Your task to perform on an android device: What's the weather today? Image 0: 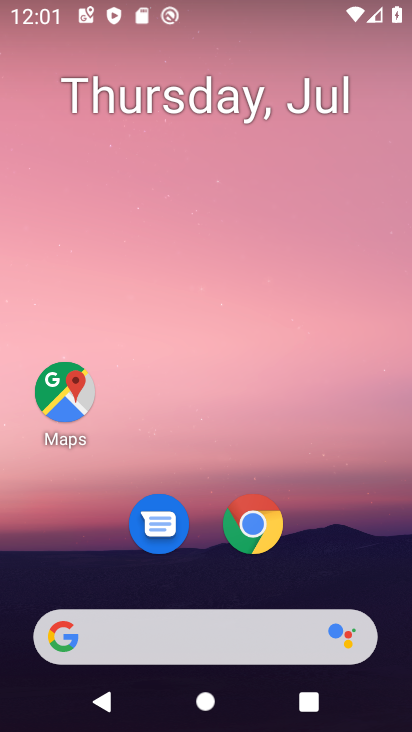
Step 0: click (139, 640)
Your task to perform on an android device: What's the weather today? Image 1: 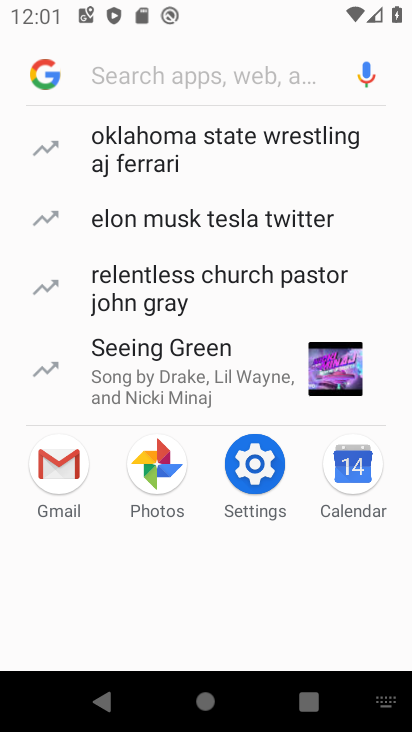
Step 1: type " weather"
Your task to perform on an android device: What's the weather today? Image 2: 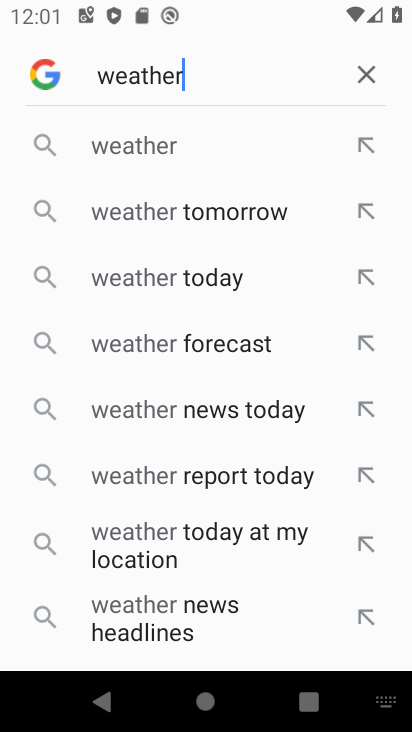
Step 2: click (154, 144)
Your task to perform on an android device: What's the weather today? Image 3: 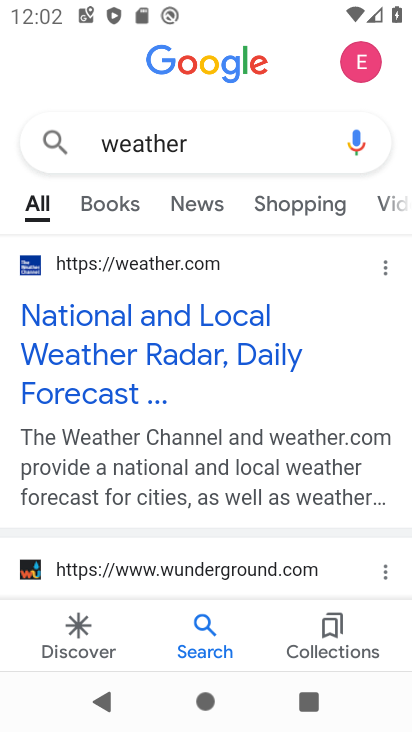
Step 3: click (204, 627)
Your task to perform on an android device: What's the weather today? Image 4: 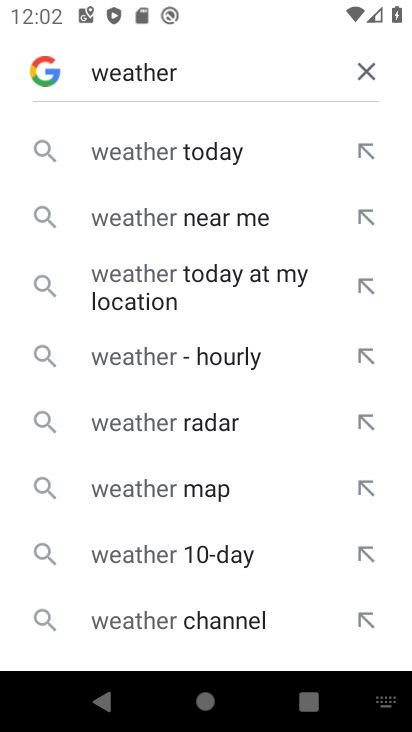
Step 4: click (195, 138)
Your task to perform on an android device: What's the weather today? Image 5: 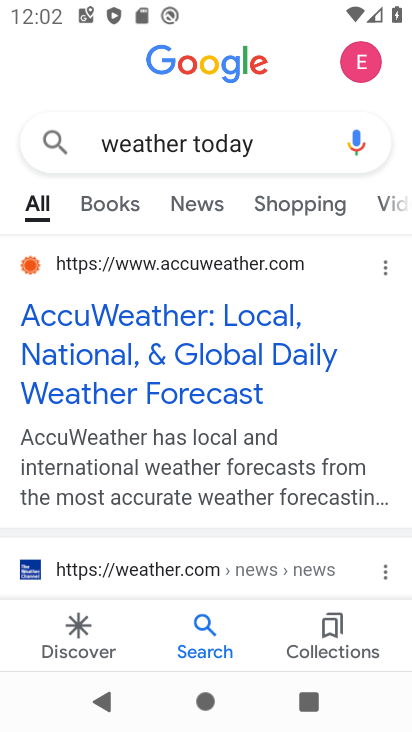
Step 5: drag from (186, 535) to (320, 103)
Your task to perform on an android device: What's the weather today? Image 6: 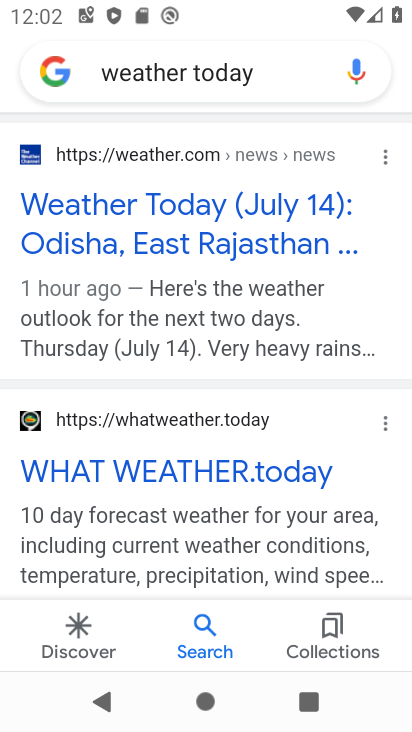
Step 6: click (131, 239)
Your task to perform on an android device: What's the weather today? Image 7: 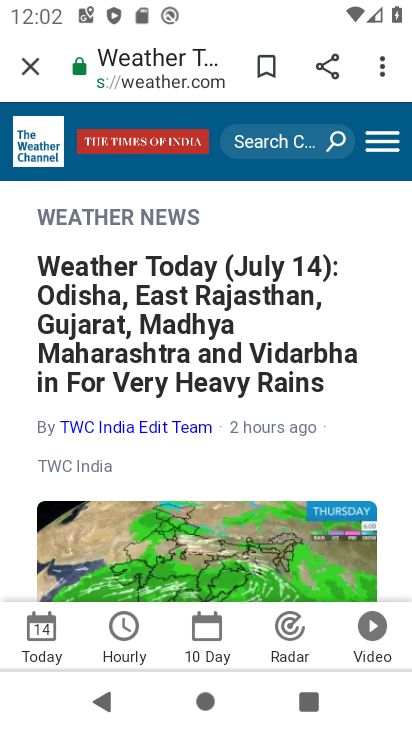
Step 7: task complete